Your task to perform on an android device: Clear all items from cart on amazon.com. Image 0: 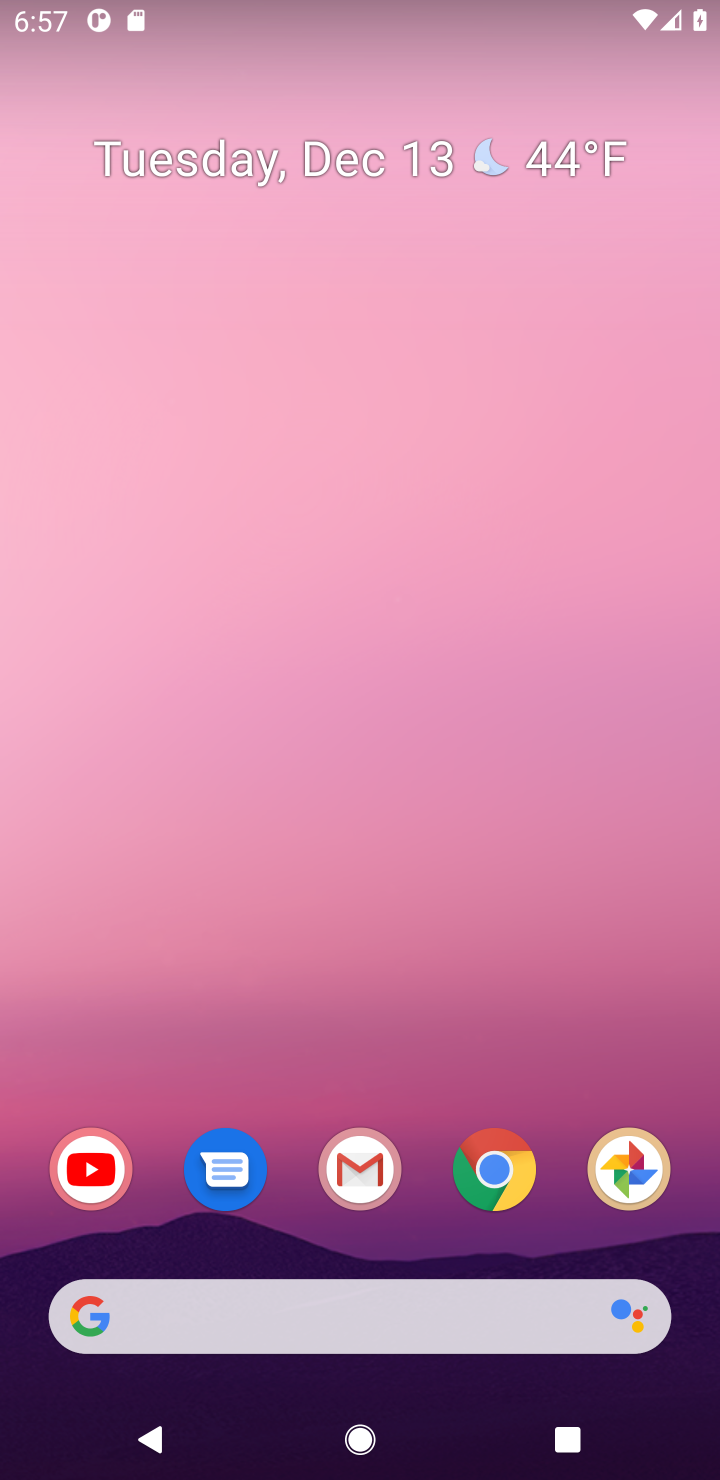
Step 0: click (533, 1188)
Your task to perform on an android device: Clear all items from cart on amazon.com. Image 1: 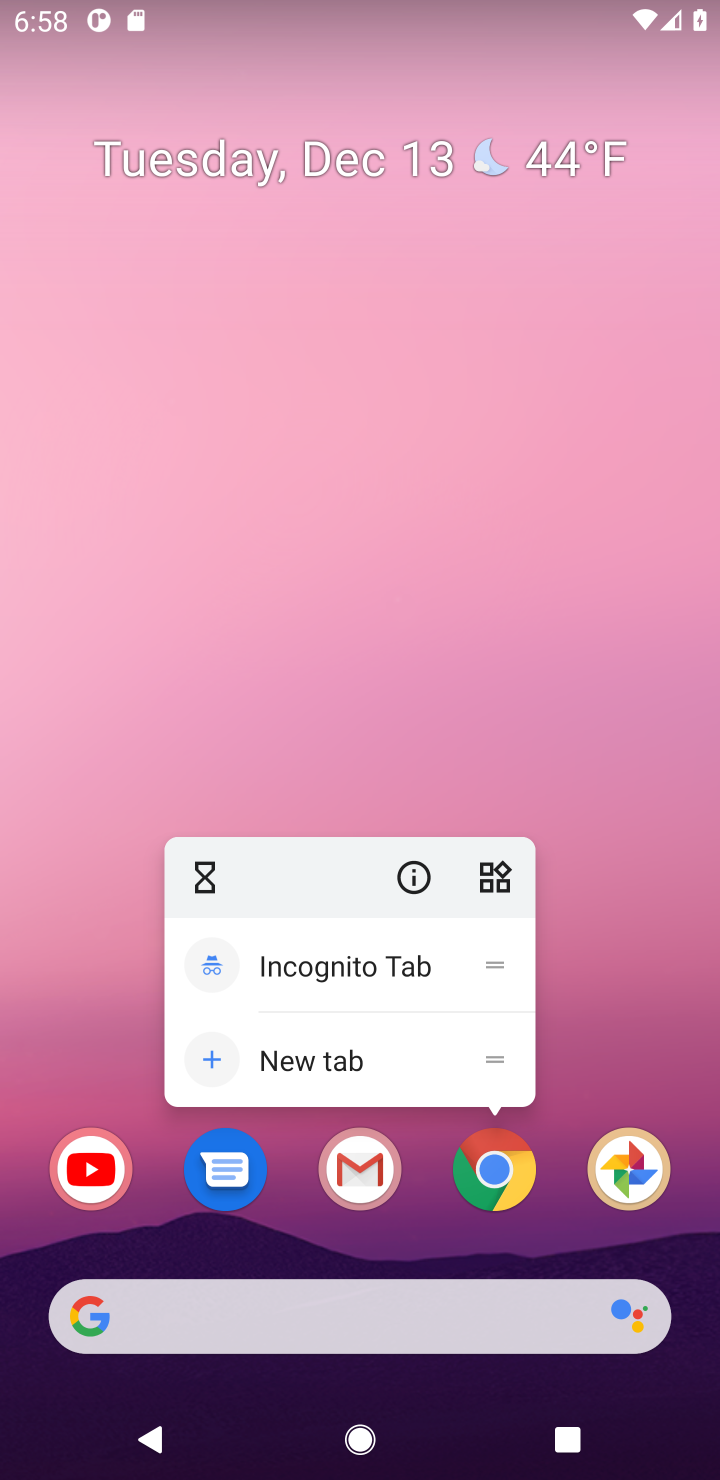
Step 1: click (511, 1187)
Your task to perform on an android device: Clear all items from cart on amazon.com. Image 2: 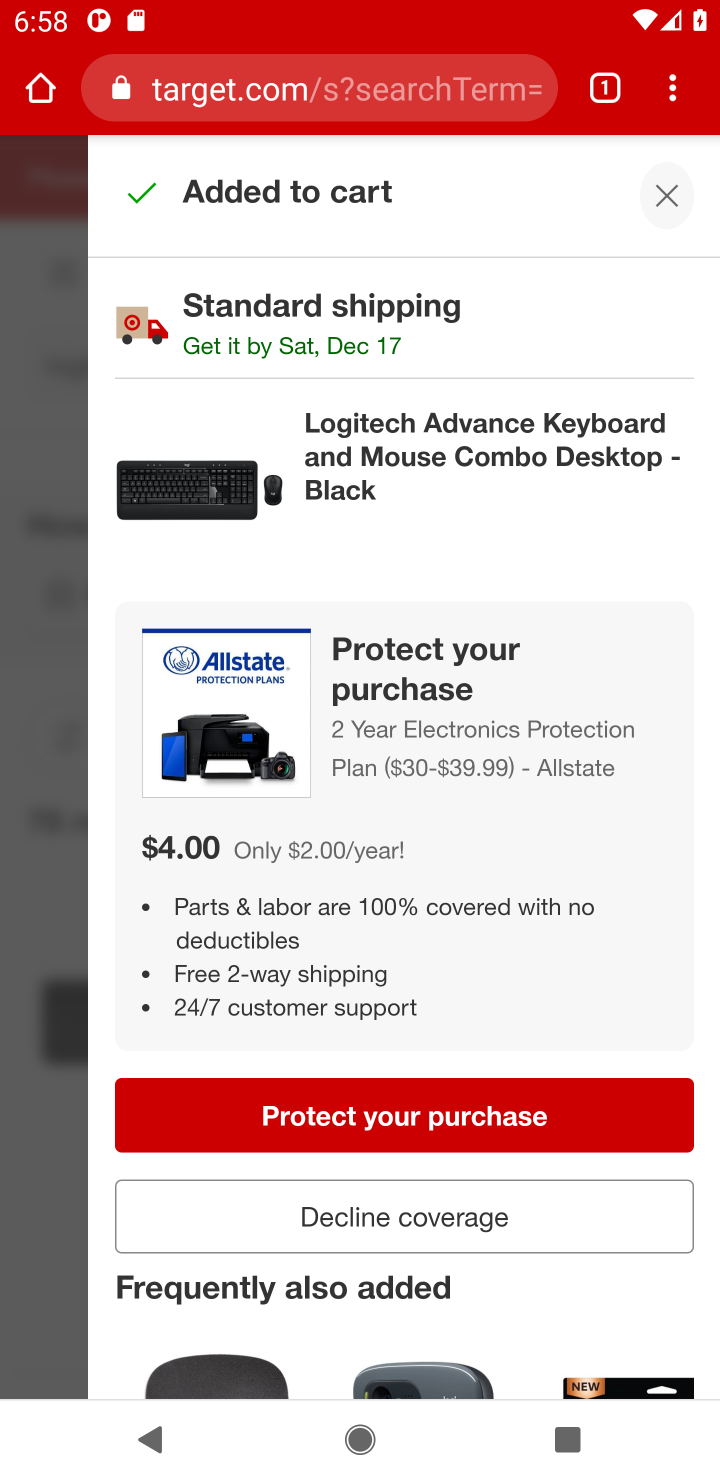
Step 2: click (353, 95)
Your task to perform on an android device: Clear all items from cart on amazon.com. Image 3: 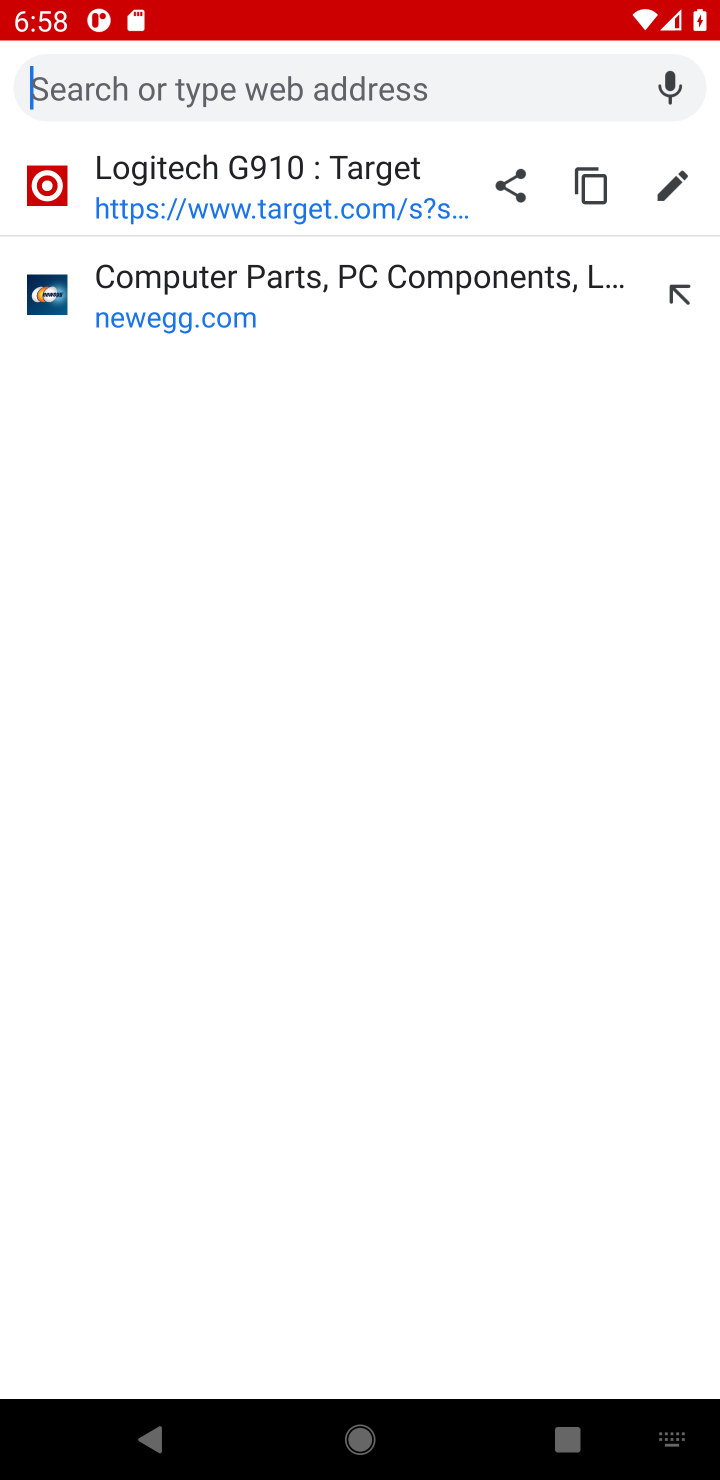
Step 3: type "amazon"
Your task to perform on an android device: Clear all items from cart on amazon.com. Image 4: 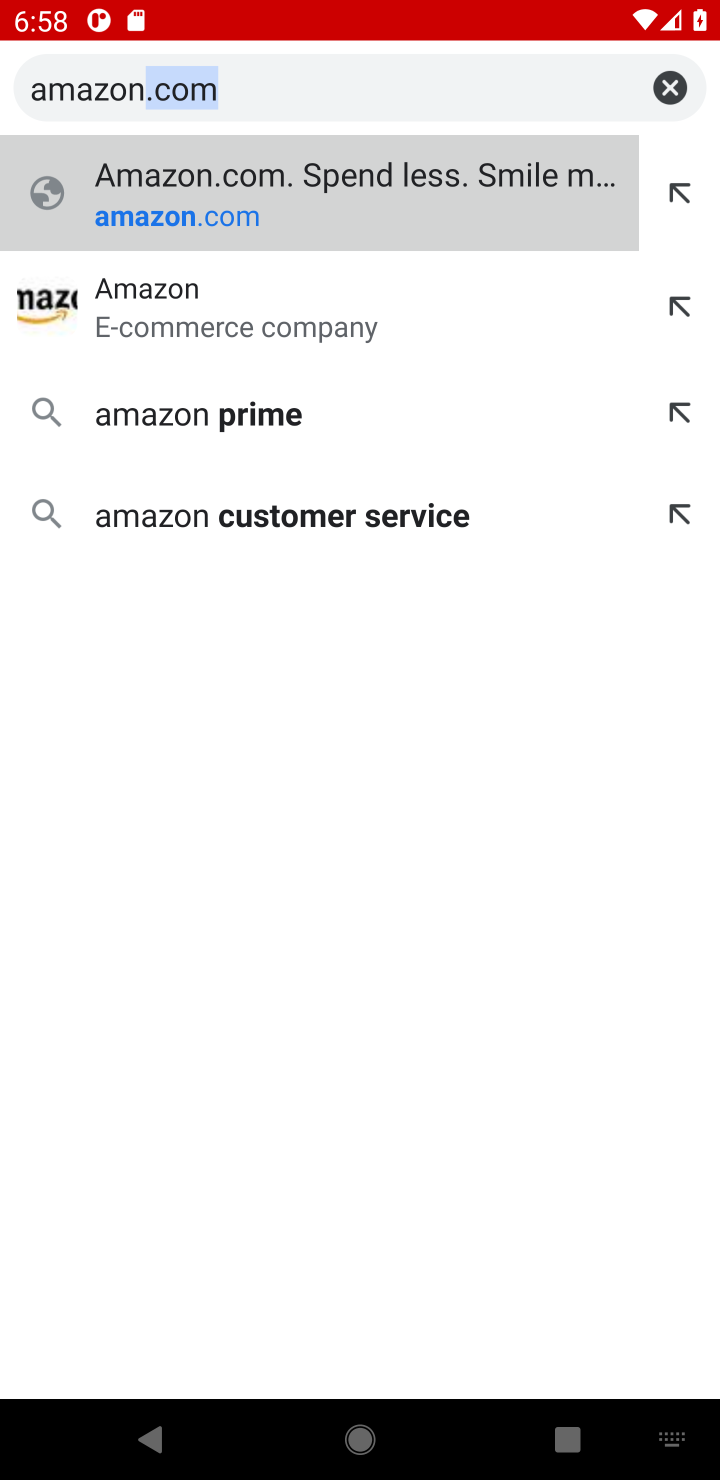
Step 4: click (190, 294)
Your task to perform on an android device: Clear all items from cart on amazon.com. Image 5: 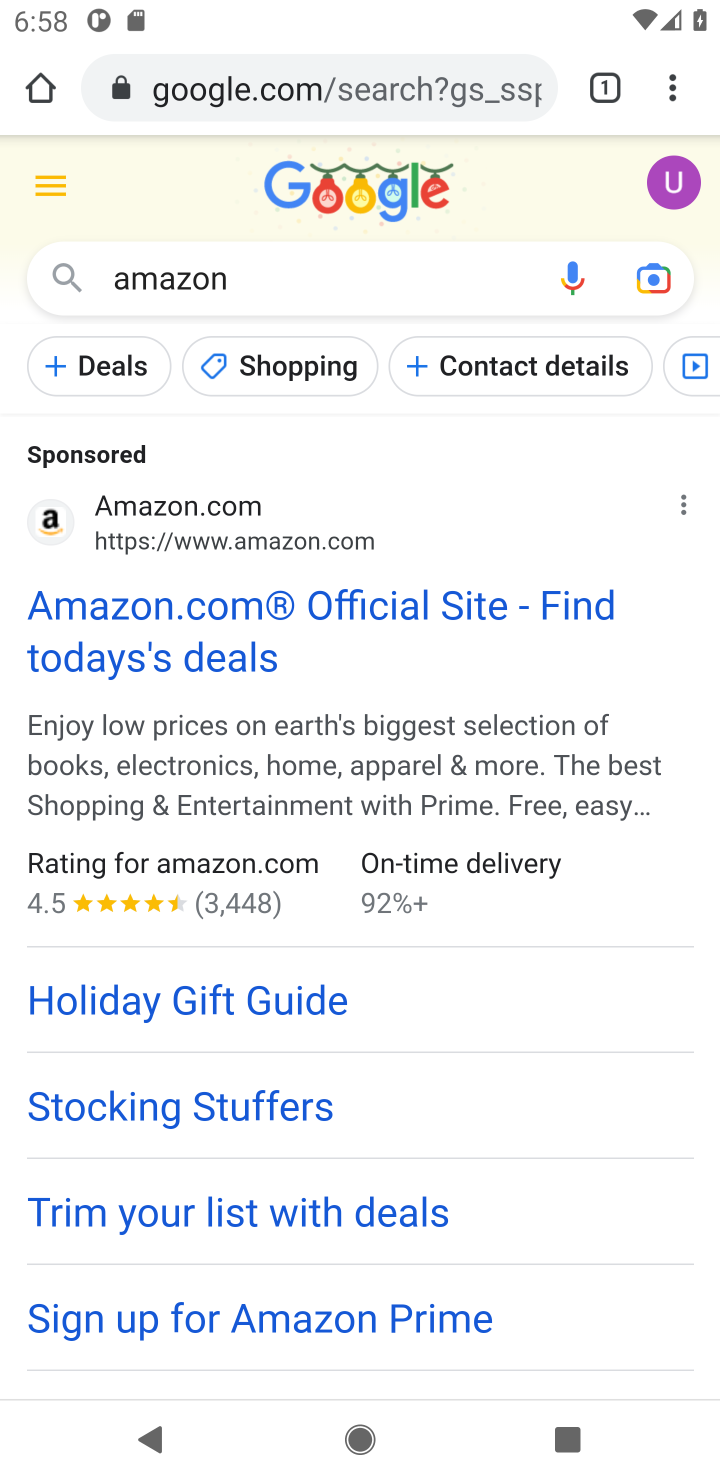
Step 5: click (349, 631)
Your task to perform on an android device: Clear all items from cart on amazon.com. Image 6: 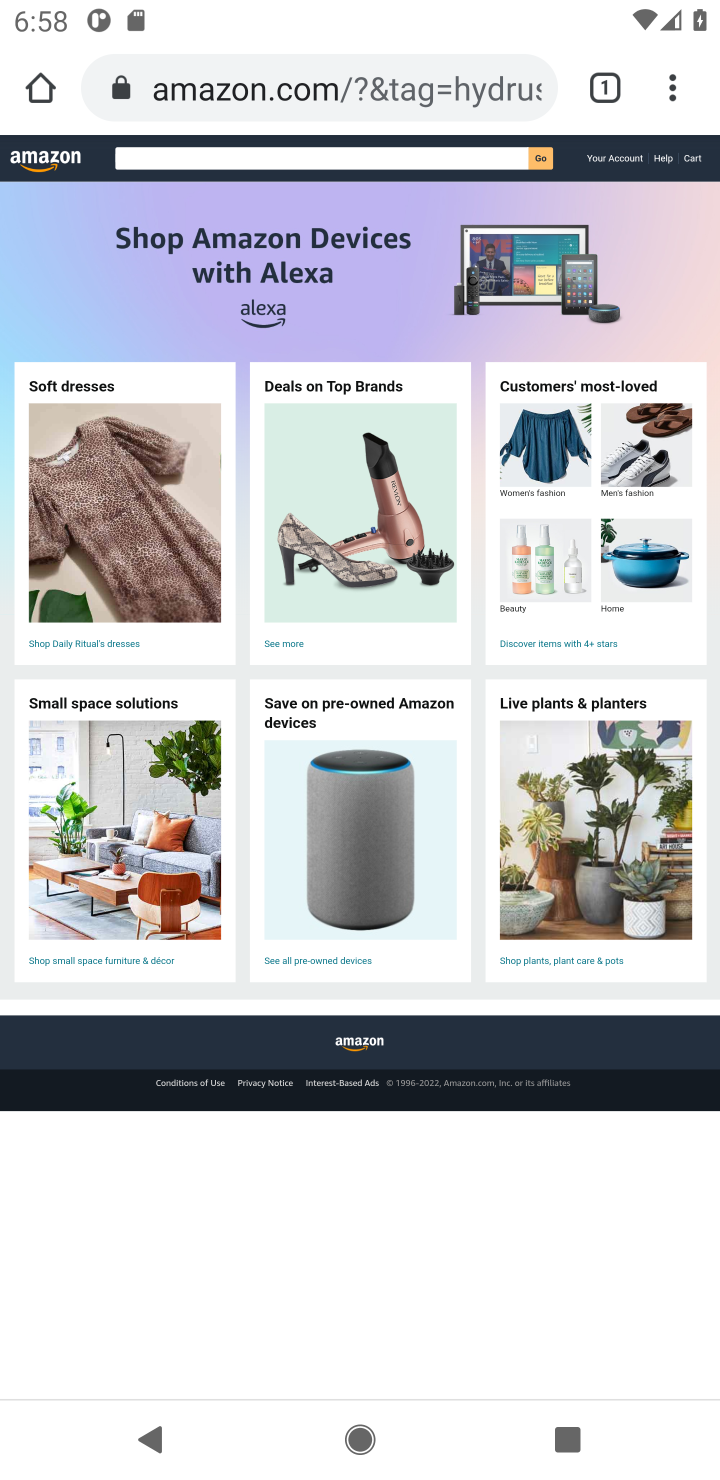
Step 6: click (261, 165)
Your task to perform on an android device: Clear all items from cart on amazon.com. Image 7: 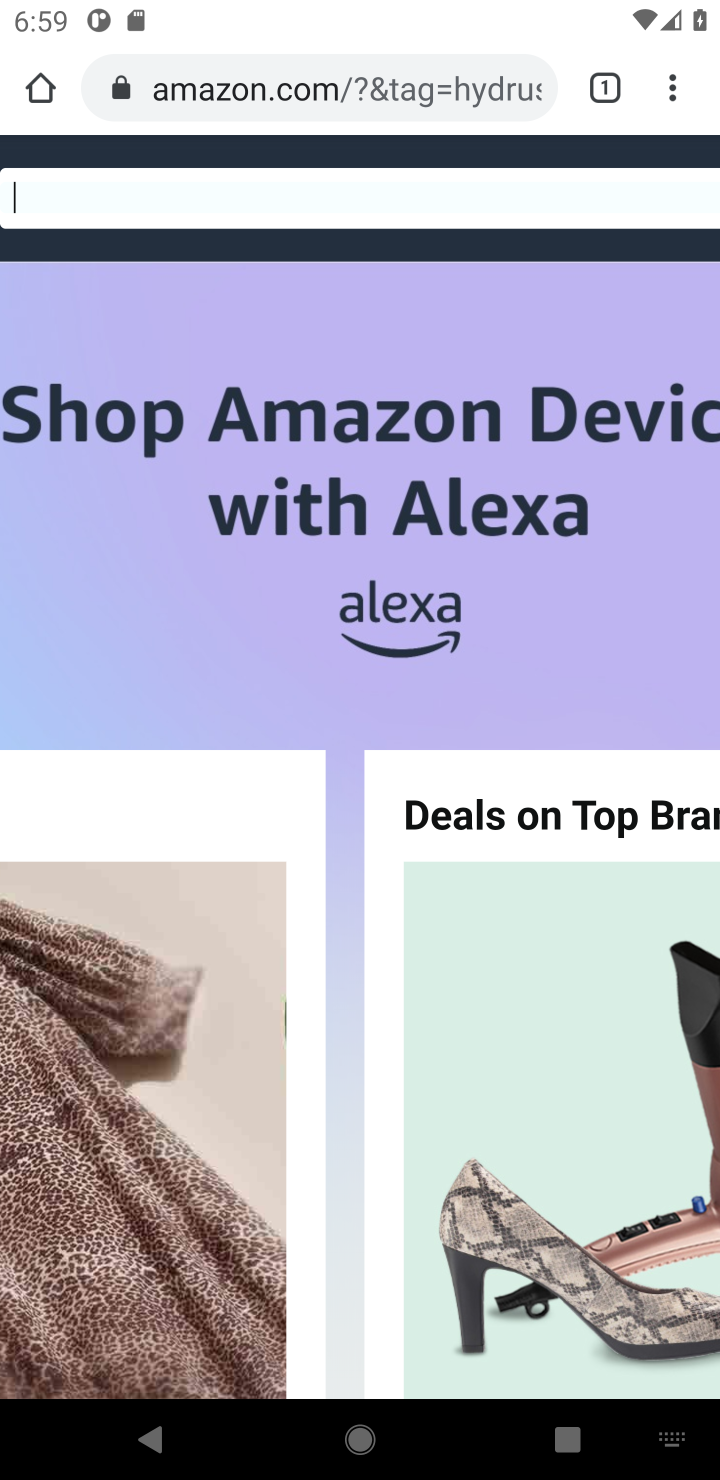
Step 7: press back button
Your task to perform on an android device: Clear all items from cart on amazon.com. Image 8: 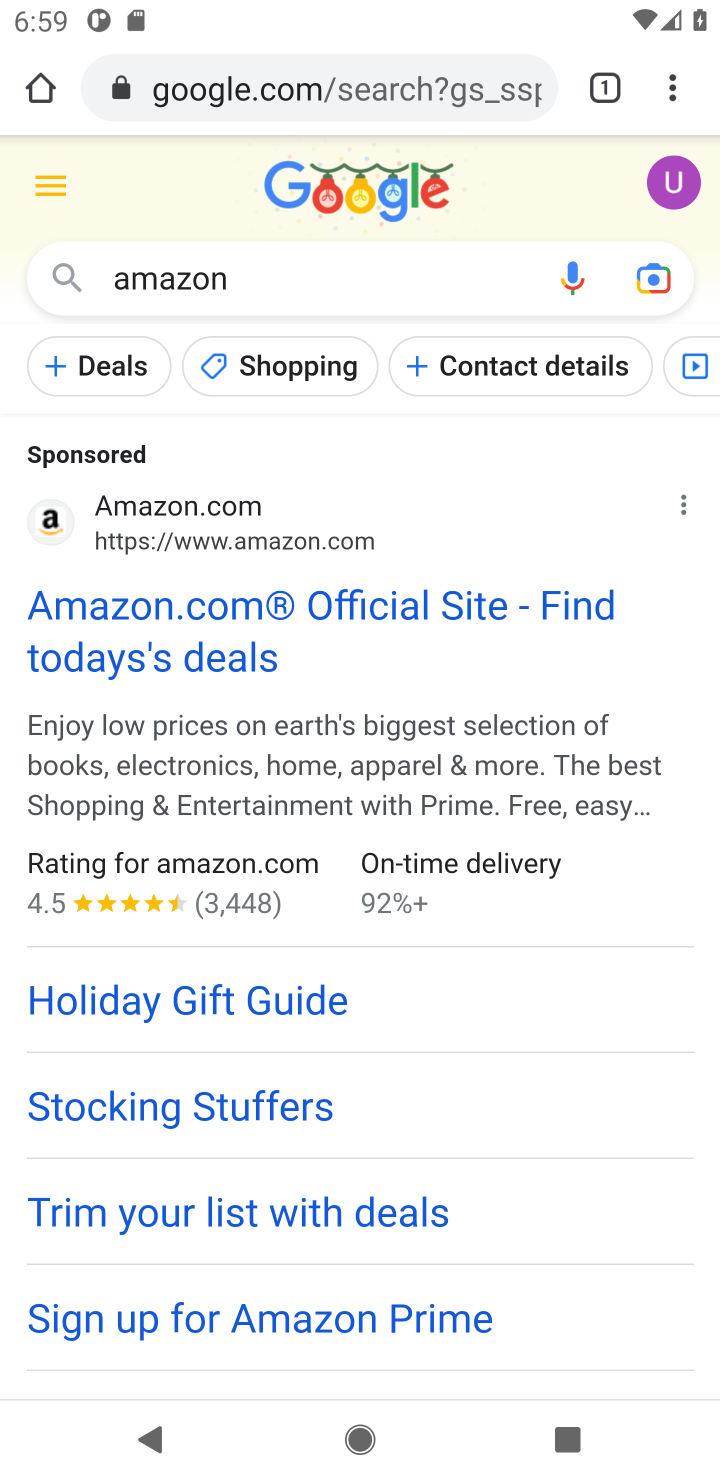
Step 8: click (320, 647)
Your task to perform on an android device: Clear all items from cart on amazon.com. Image 9: 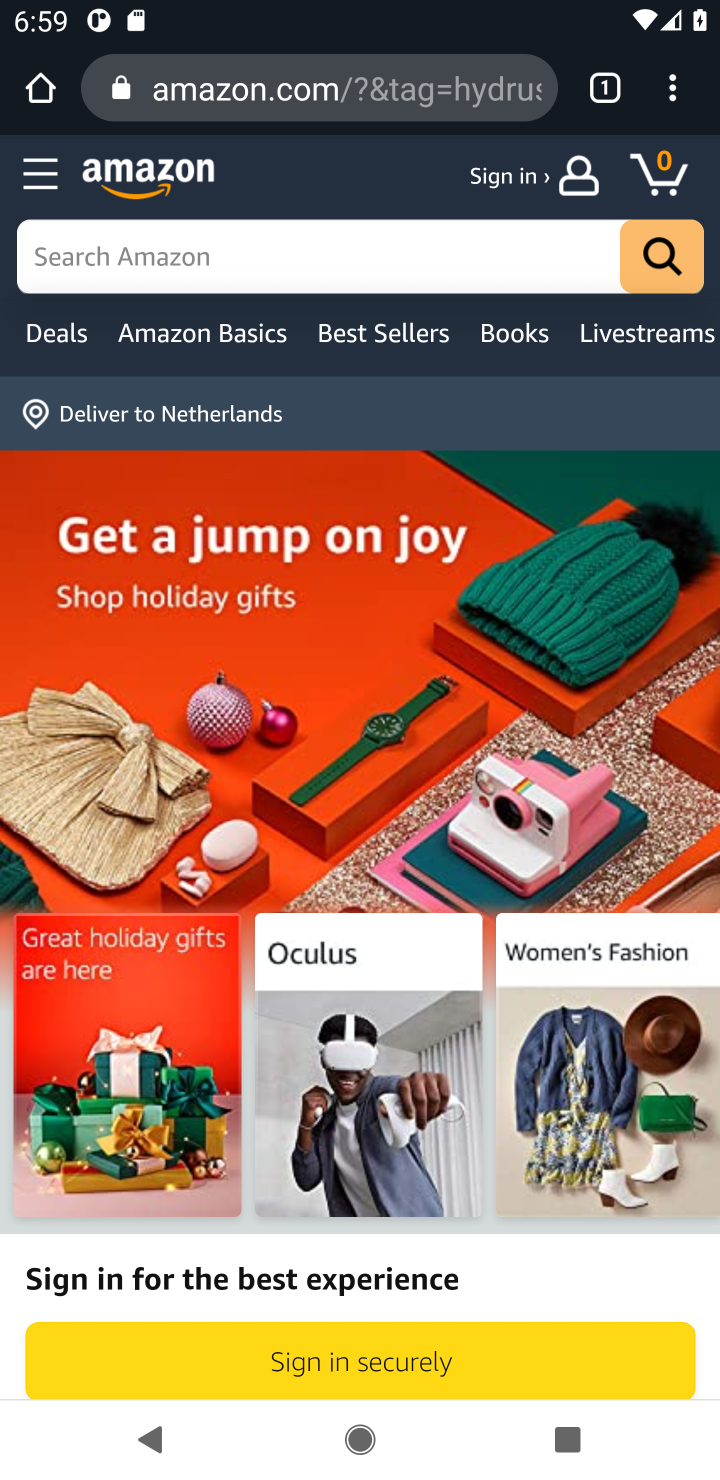
Step 9: click (664, 190)
Your task to perform on an android device: Clear all items from cart on amazon.com. Image 10: 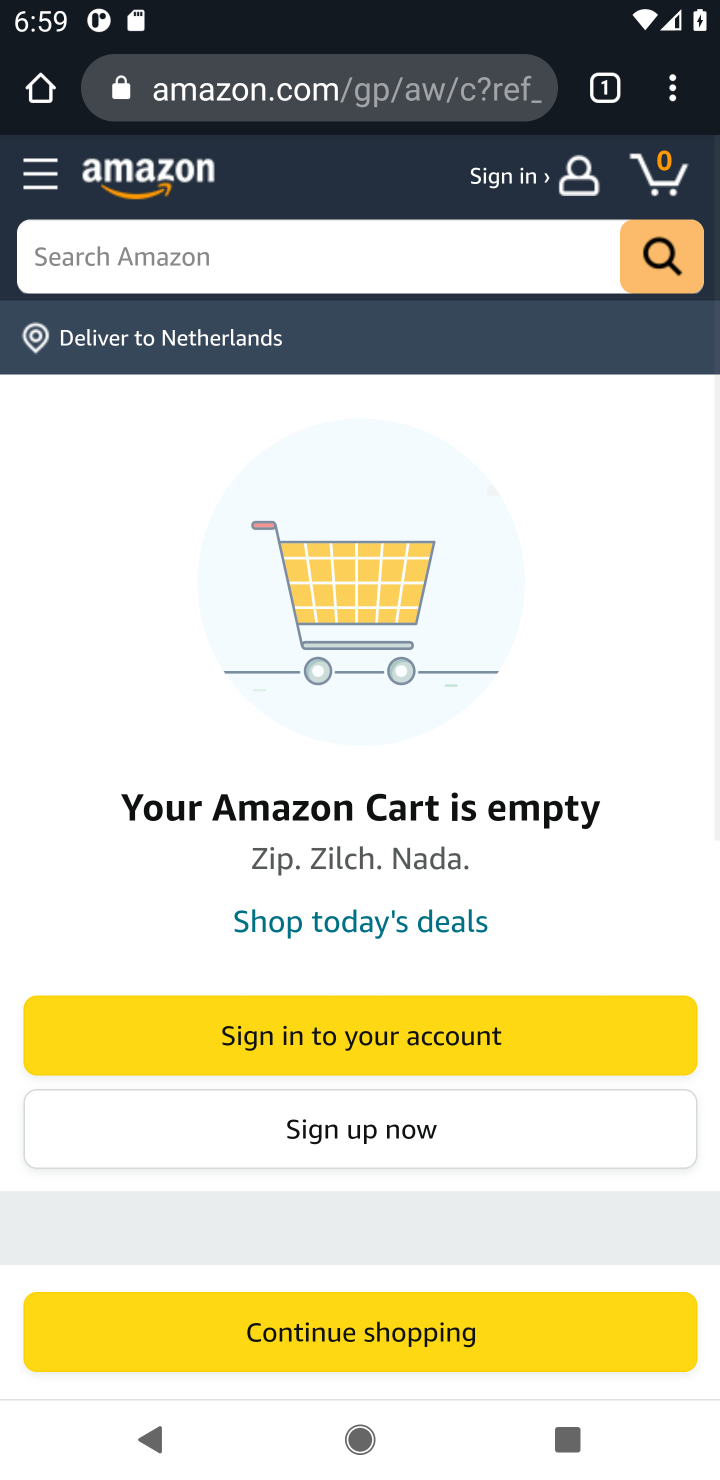
Step 10: task complete